Your task to perform on an android device: Open sound settings Image 0: 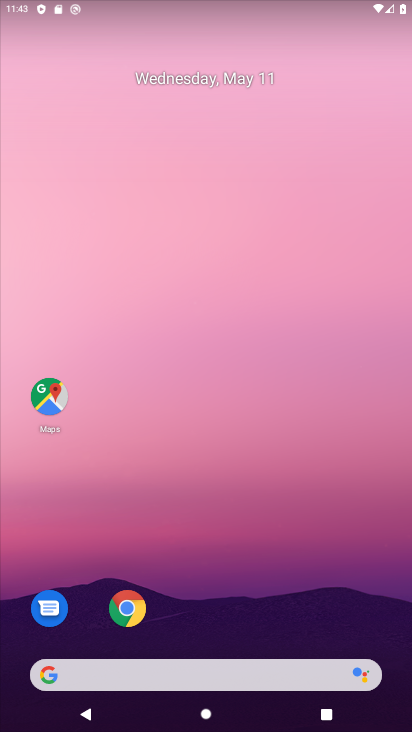
Step 0: drag from (256, 614) to (238, 6)
Your task to perform on an android device: Open sound settings Image 1: 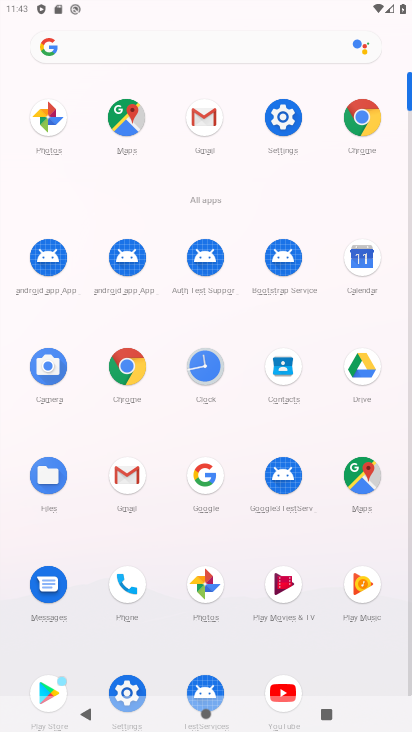
Step 1: click (284, 124)
Your task to perform on an android device: Open sound settings Image 2: 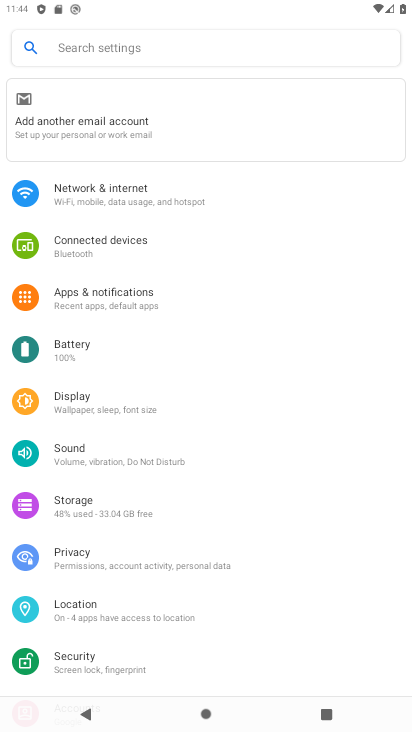
Step 2: click (78, 445)
Your task to perform on an android device: Open sound settings Image 3: 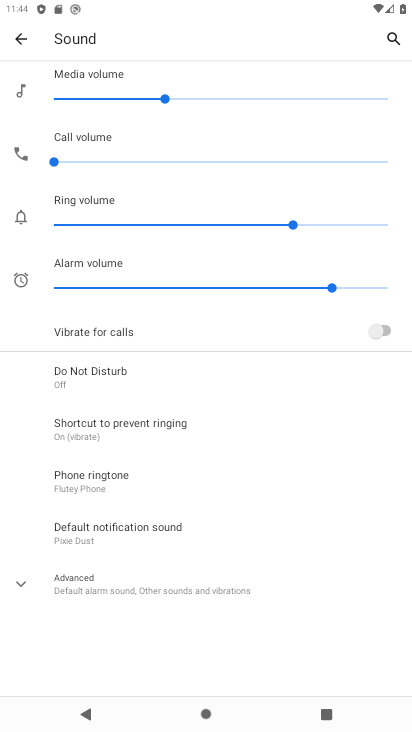
Step 3: task complete